Your task to perform on an android device: Go to accessibility settings Image 0: 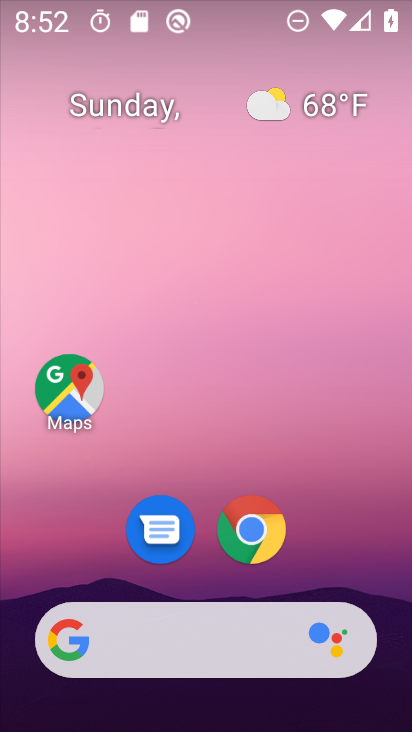
Step 0: press home button
Your task to perform on an android device: Go to accessibility settings Image 1: 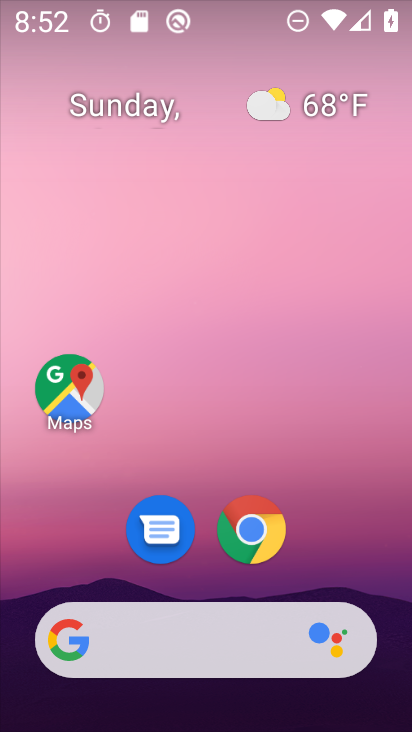
Step 1: drag from (201, 579) to (250, 90)
Your task to perform on an android device: Go to accessibility settings Image 2: 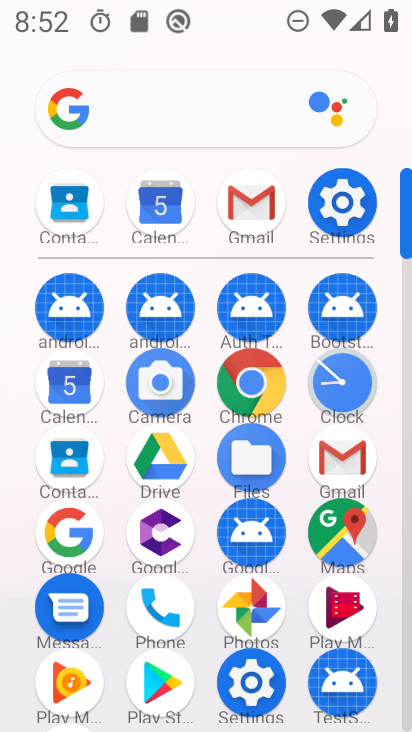
Step 2: click (339, 192)
Your task to perform on an android device: Go to accessibility settings Image 3: 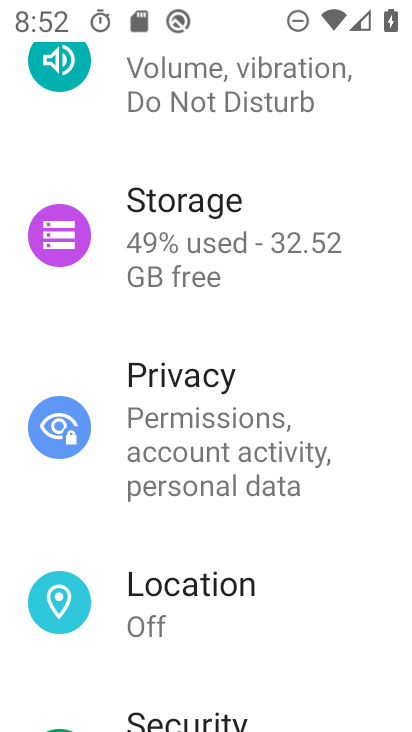
Step 3: drag from (231, 660) to (224, 49)
Your task to perform on an android device: Go to accessibility settings Image 4: 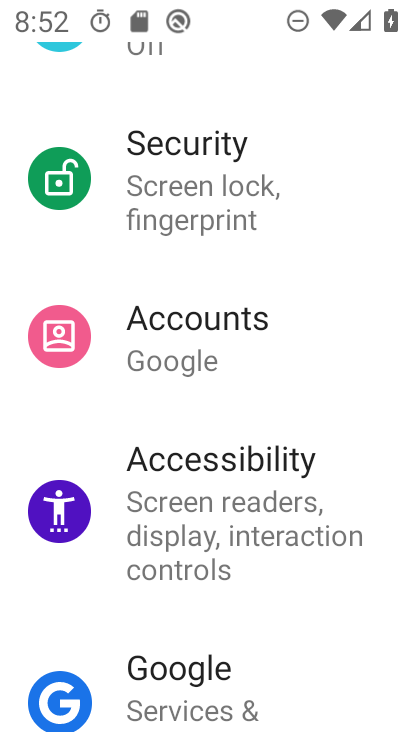
Step 4: click (206, 492)
Your task to perform on an android device: Go to accessibility settings Image 5: 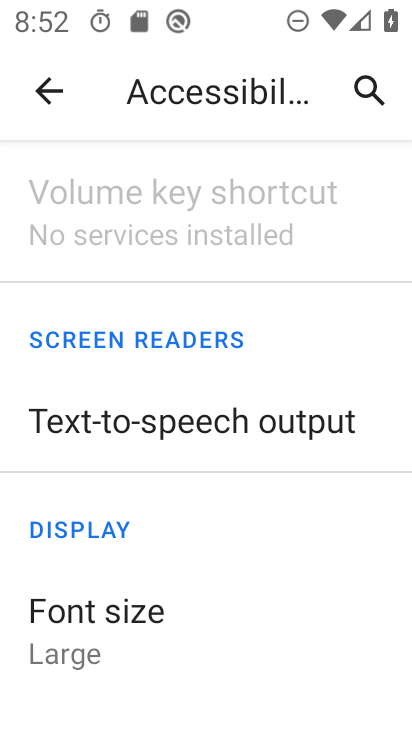
Step 5: task complete